Your task to perform on an android device: turn notification dots on Image 0: 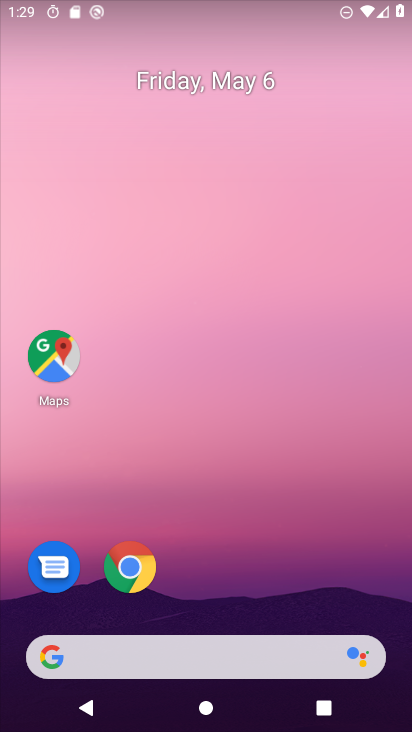
Step 0: drag from (333, 469) to (318, 14)
Your task to perform on an android device: turn notification dots on Image 1: 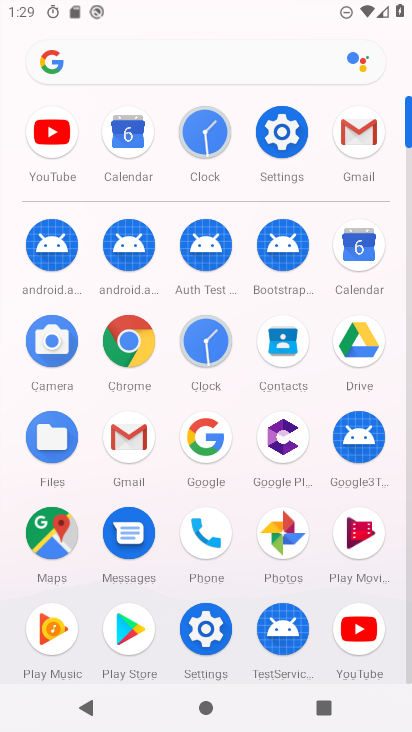
Step 1: click (268, 138)
Your task to perform on an android device: turn notification dots on Image 2: 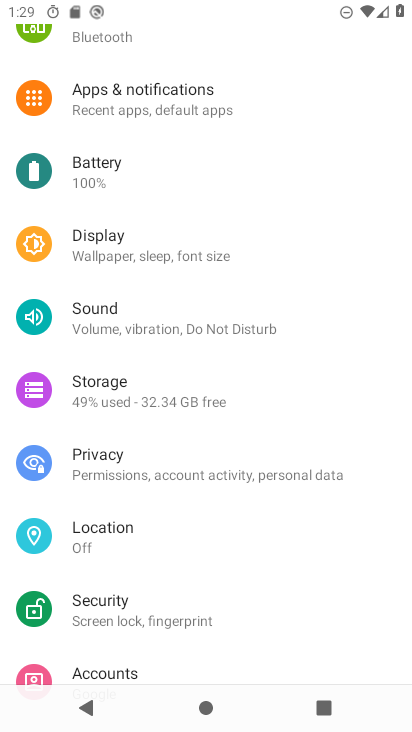
Step 2: click (148, 101)
Your task to perform on an android device: turn notification dots on Image 3: 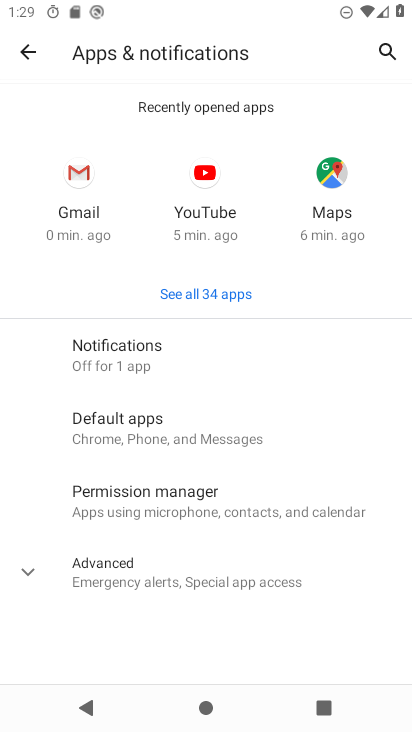
Step 3: click (120, 353)
Your task to perform on an android device: turn notification dots on Image 4: 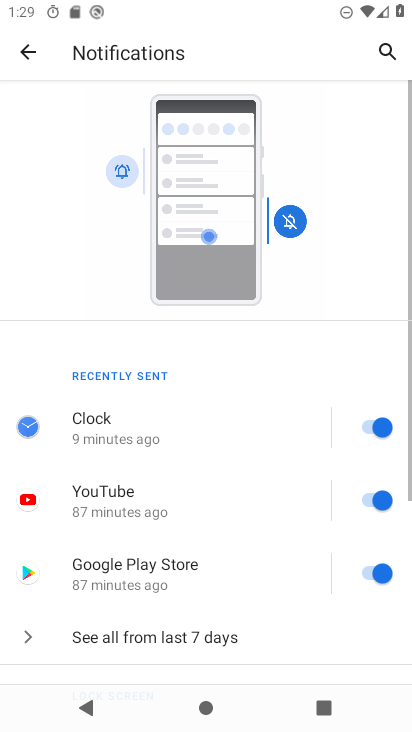
Step 4: drag from (187, 517) to (152, 41)
Your task to perform on an android device: turn notification dots on Image 5: 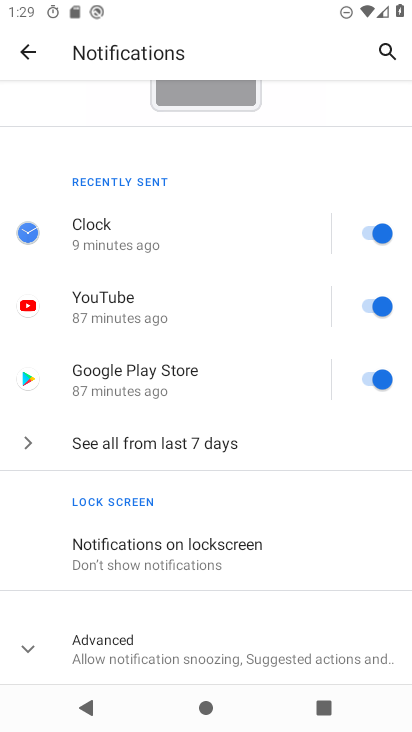
Step 5: click (26, 654)
Your task to perform on an android device: turn notification dots on Image 6: 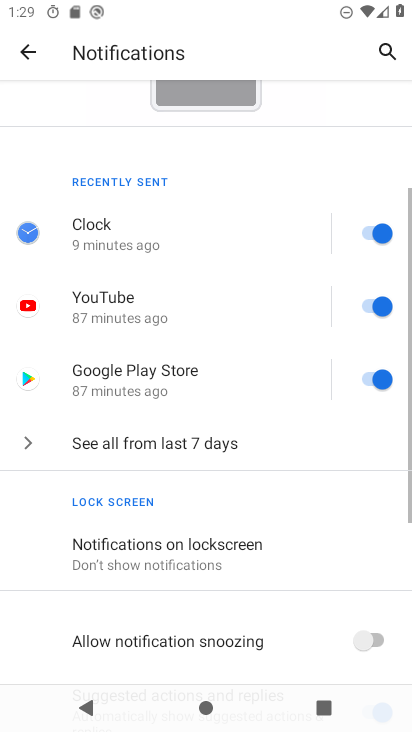
Step 6: task complete